Your task to perform on an android device: turn on priority inbox in the gmail app Image 0: 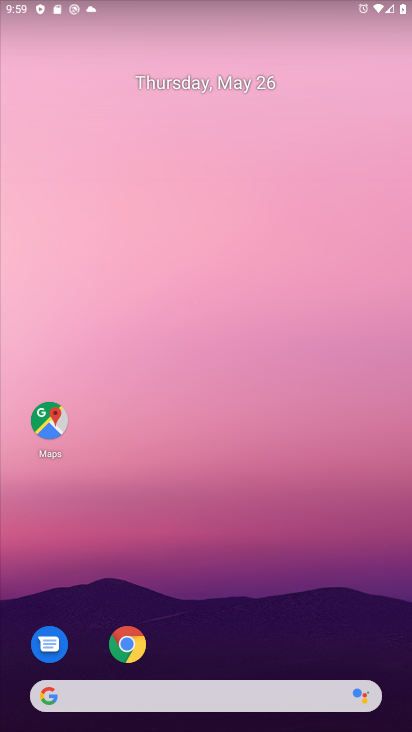
Step 0: drag from (235, 550) to (280, 160)
Your task to perform on an android device: turn on priority inbox in the gmail app Image 1: 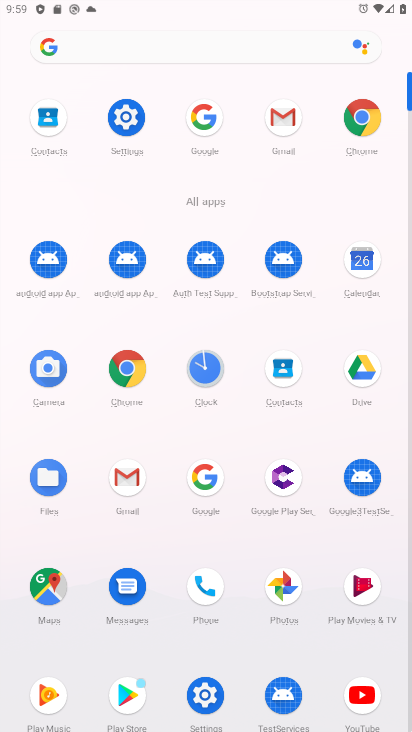
Step 1: click (273, 140)
Your task to perform on an android device: turn on priority inbox in the gmail app Image 2: 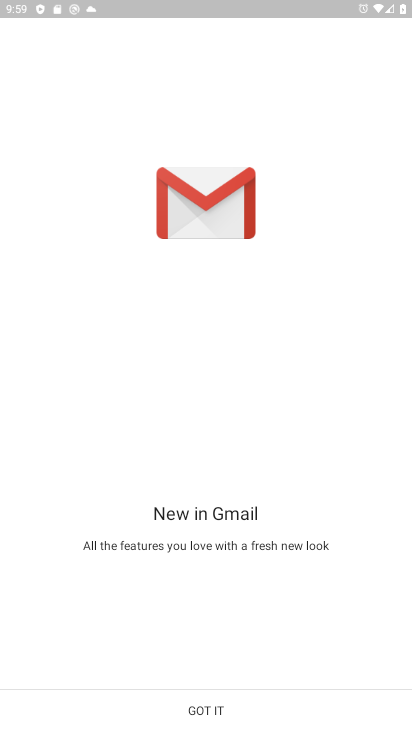
Step 2: click (205, 699)
Your task to perform on an android device: turn on priority inbox in the gmail app Image 3: 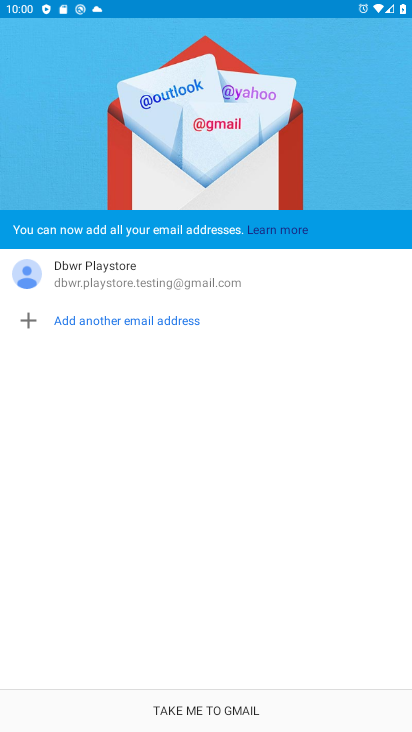
Step 3: click (176, 711)
Your task to perform on an android device: turn on priority inbox in the gmail app Image 4: 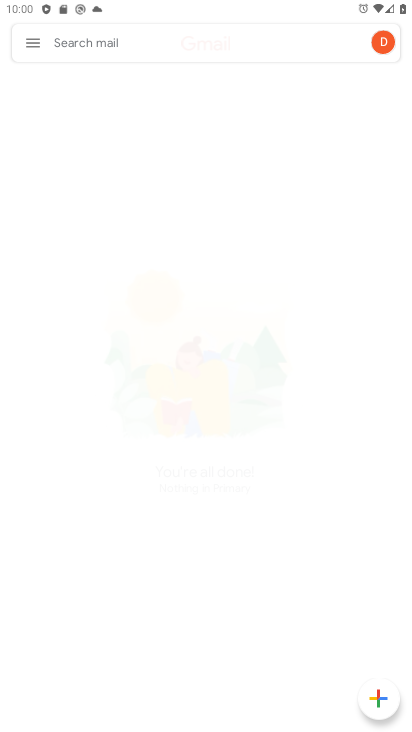
Step 4: click (34, 46)
Your task to perform on an android device: turn on priority inbox in the gmail app Image 5: 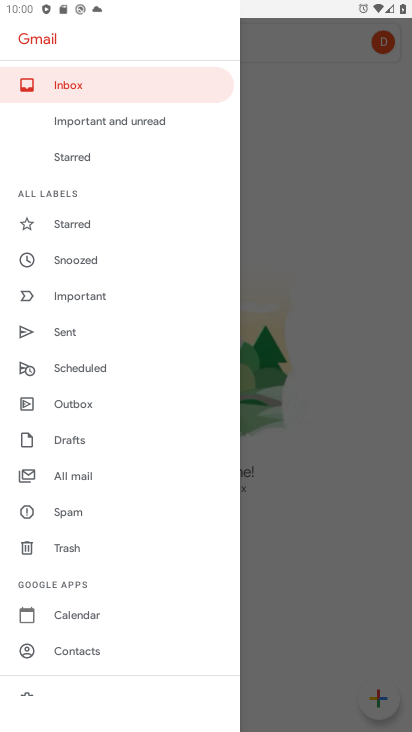
Step 5: drag from (117, 602) to (108, 244)
Your task to perform on an android device: turn on priority inbox in the gmail app Image 6: 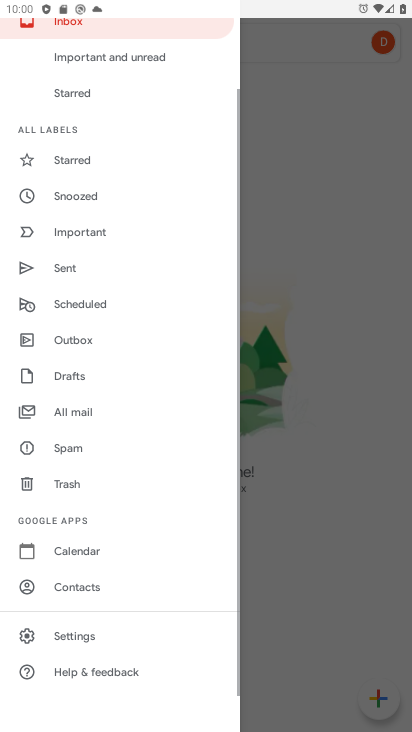
Step 6: click (82, 636)
Your task to perform on an android device: turn on priority inbox in the gmail app Image 7: 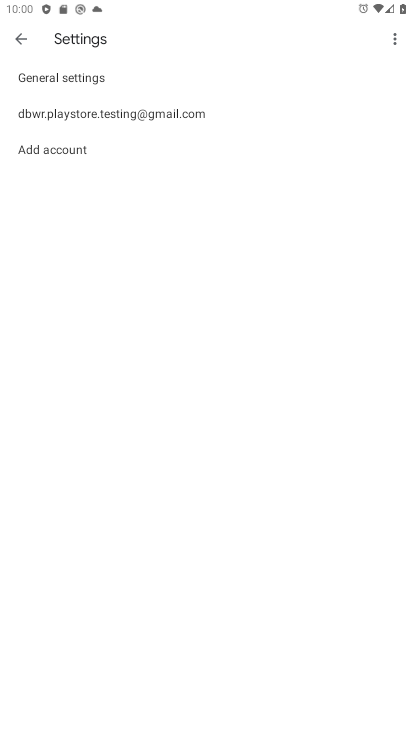
Step 7: click (168, 99)
Your task to perform on an android device: turn on priority inbox in the gmail app Image 8: 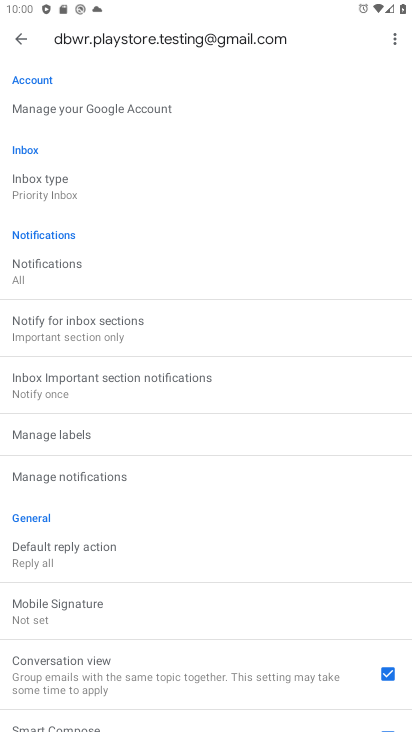
Step 8: click (141, 189)
Your task to perform on an android device: turn on priority inbox in the gmail app Image 9: 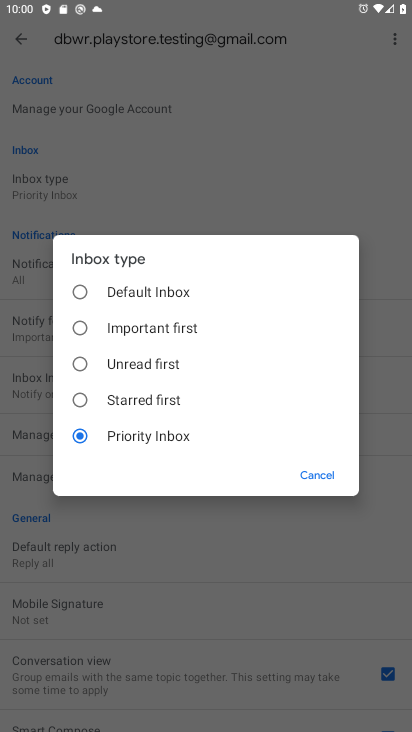
Step 9: task complete